Your task to perform on an android device: Go to Maps Image 0: 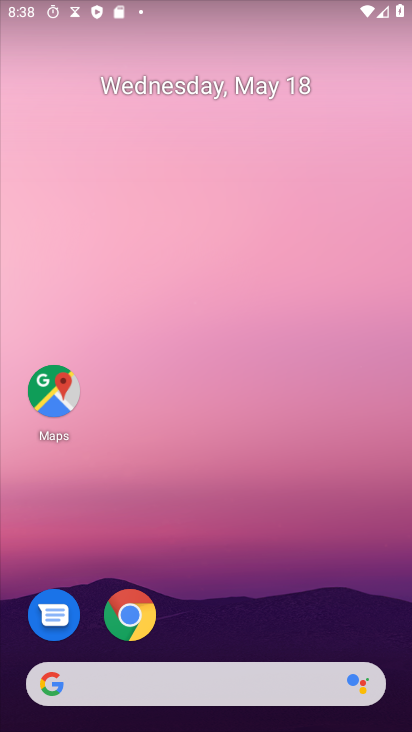
Step 0: click (58, 425)
Your task to perform on an android device: Go to Maps Image 1: 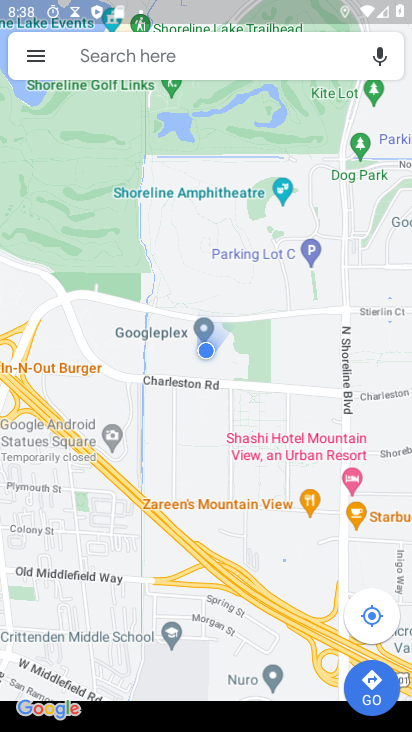
Step 1: task complete